Your task to perform on an android device: set the timer Image 0: 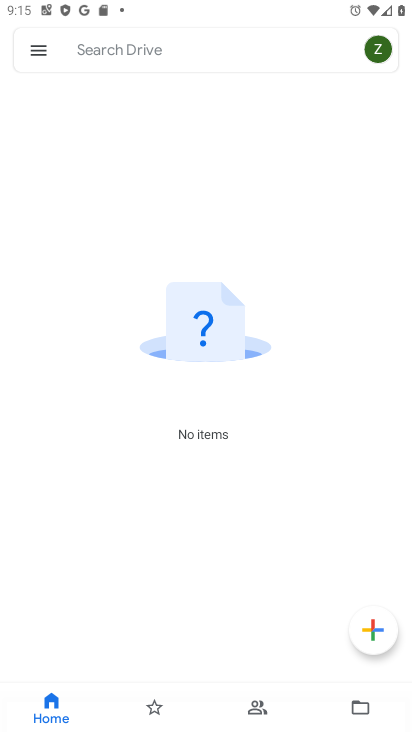
Step 0: press home button
Your task to perform on an android device: set the timer Image 1: 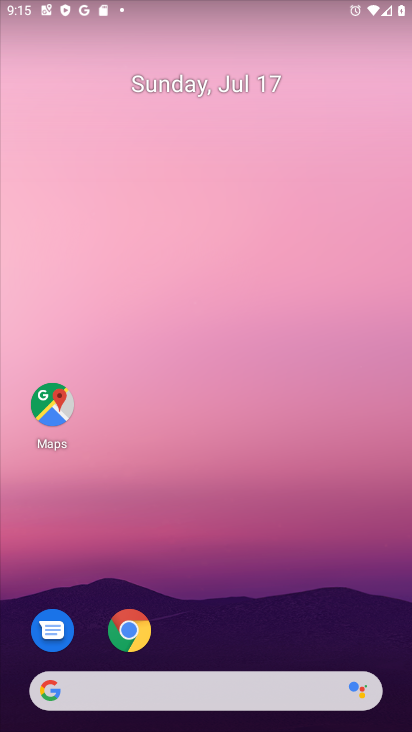
Step 1: drag from (183, 385) to (188, 82)
Your task to perform on an android device: set the timer Image 2: 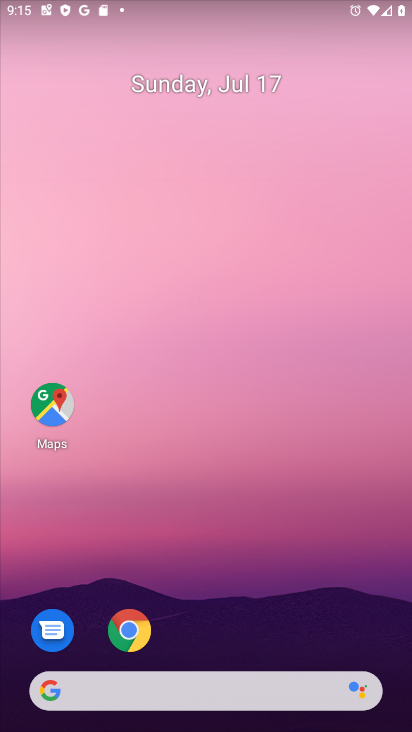
Step 2: drag from (202, 608) to (194, 73)
Your task to perform on an android device: set the timer Image 3: 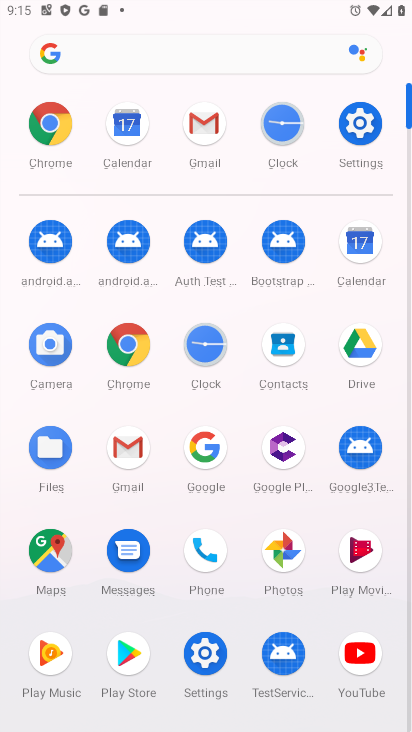
Step 3: click (354, 128)
Your task to perform on an android device: set the timer Image 4: 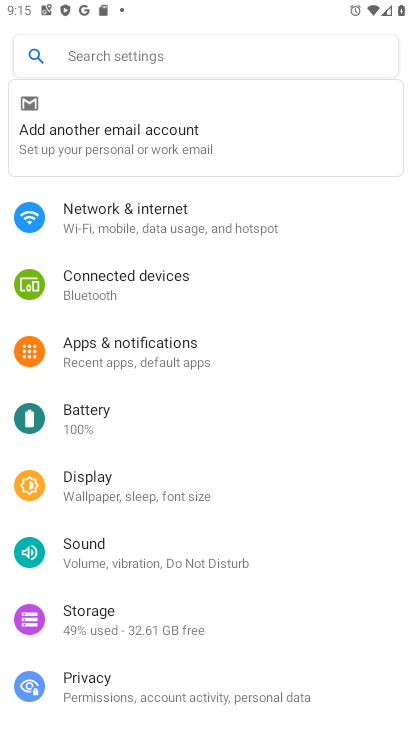
Step 4: press back button
Your task to perform on an android device: set the timer Image 5: 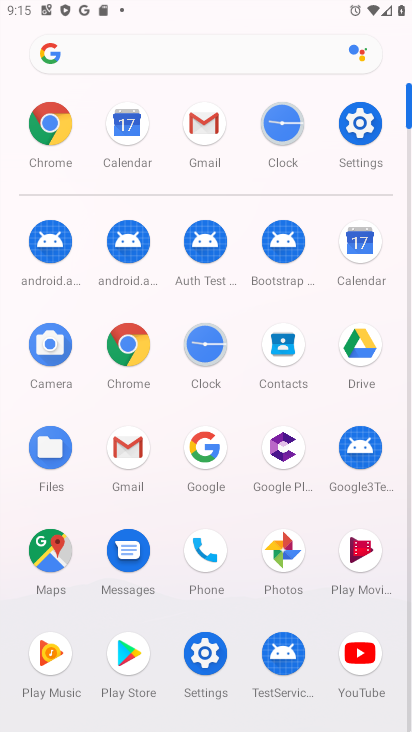
Step 5: click (211, 349)
Your task to perform on an android device: set the timer Image 6: 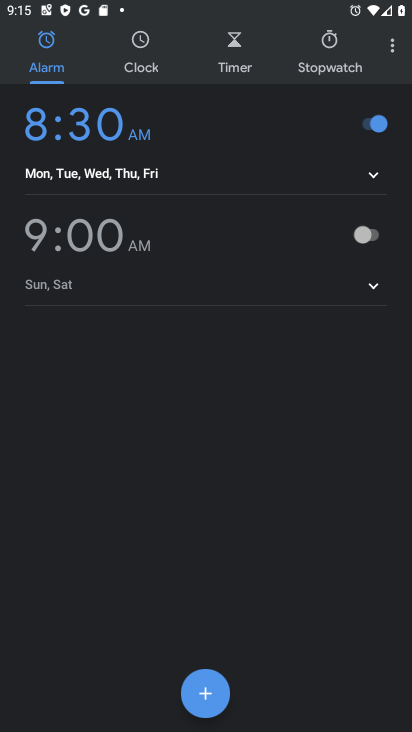
Step 6: click (232, 66)
Your task to perform on an android device: set the timer Image 7: 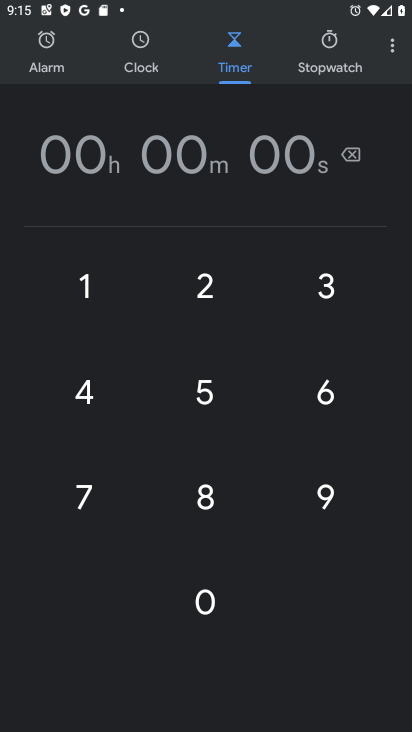
Step 7: click (217, 298)
Your task to perform on an android device: set the timer Image 8: 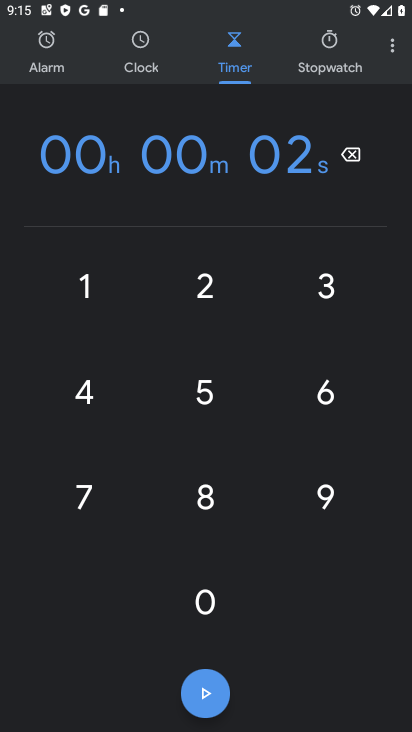
Step 8: click (204, 591)
Your task to perform on an android device: set the timer Image 9: 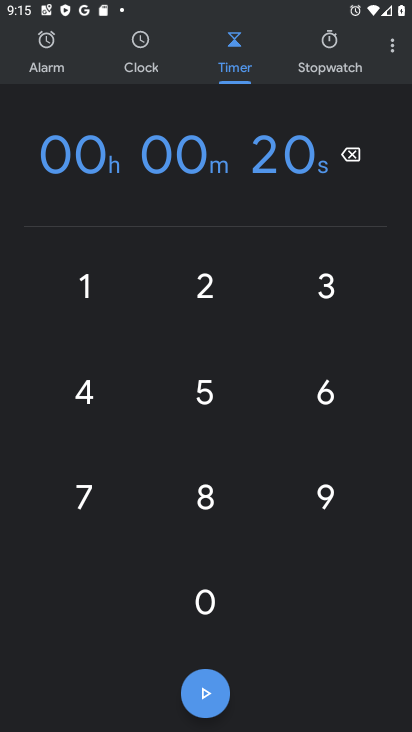
Step 9: click (204, 591)
Your task to perform on an android device: set the timer Image 10: 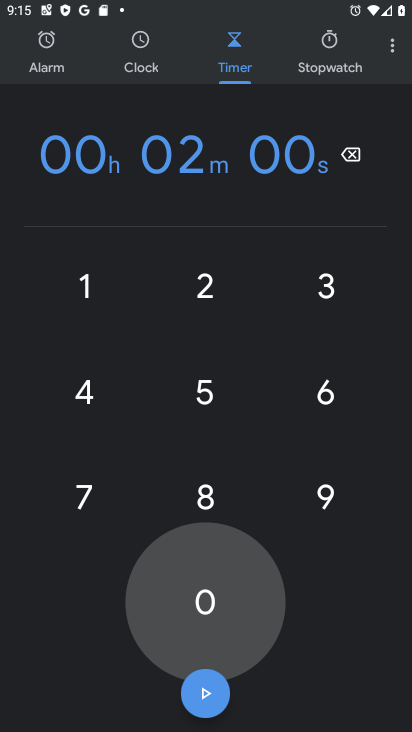
Step 10: click (204, 591)
Your task to perform on an android device: set the timer Image 11: 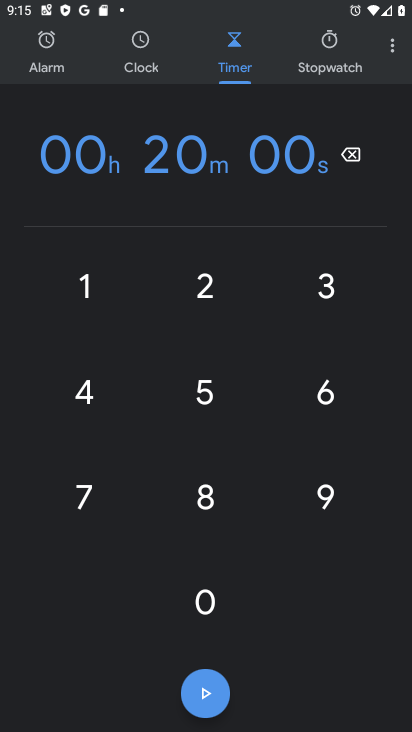
Step 11: click (203, 686)
Your task to perform on an android device: set the timer Image 12: 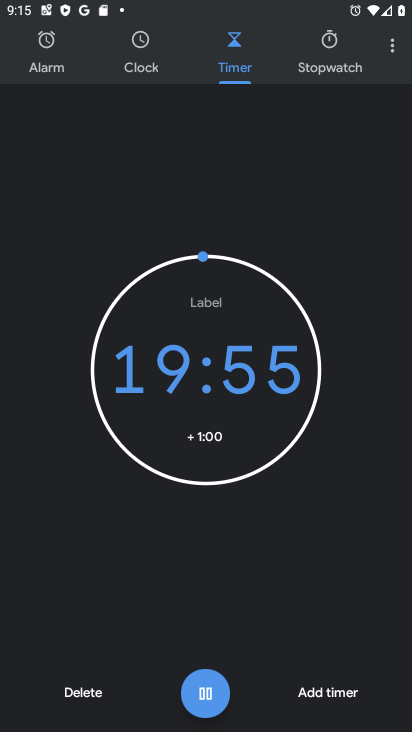
Step 12: click (322, 699)
Your task to perform on an android device: set the timer Image 13: 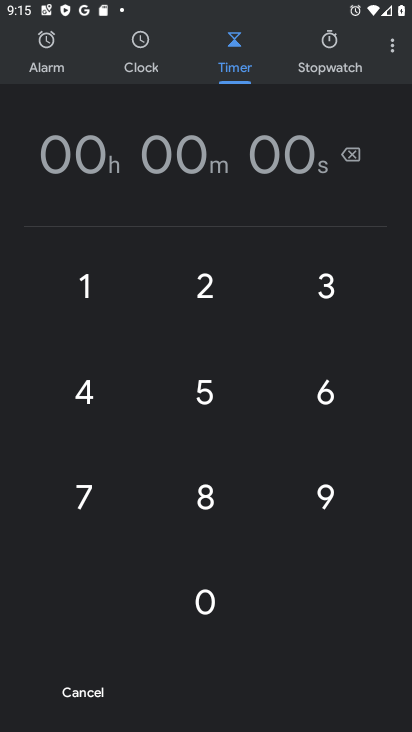
Step 13: task complete